Your task to perform on an android device: Open Chrome and go to the settings page Image 0: 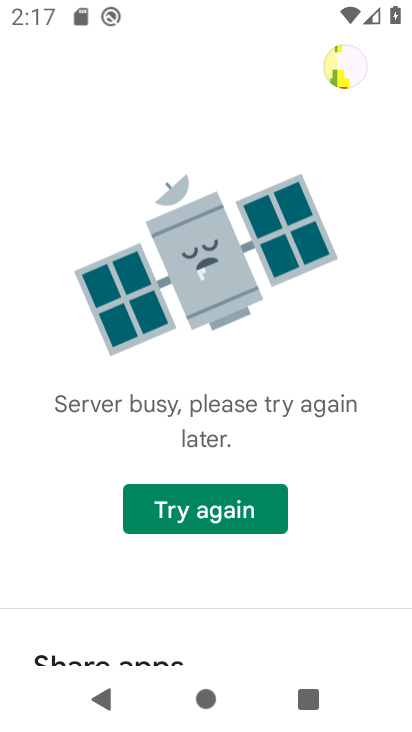
Step 0: press home button
Your task to perform on an android device: Open Chrome and go to the settings page Image 1: 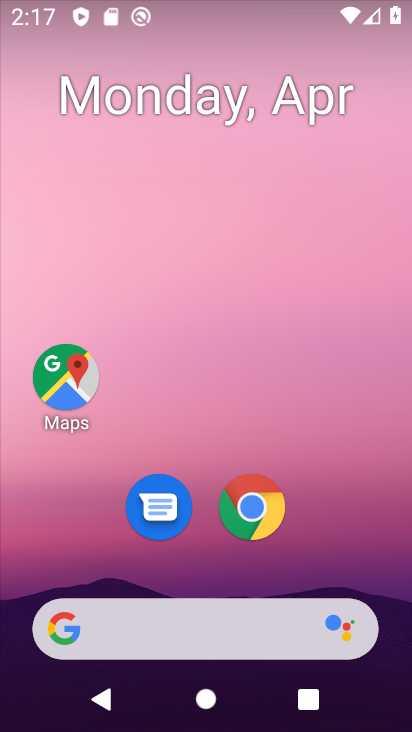
Step 1: click (253, 508)
Your task to perform on an android device: Open Chrome and go to the settings page Image 2: 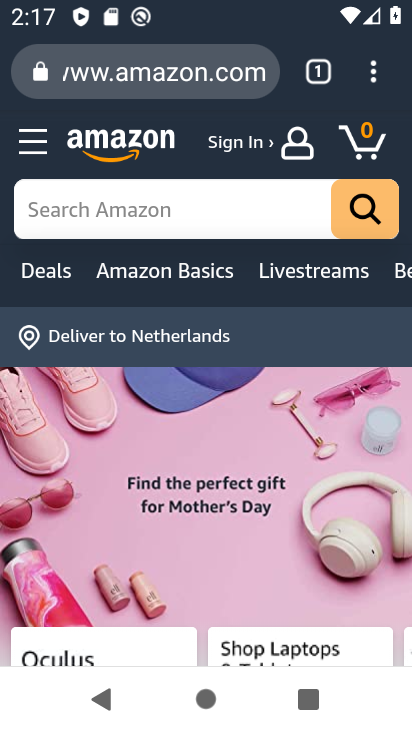
Step 2: click (372, 71)
Your task to perform on an android device: Open Chrome and go to the settings page Image 3: 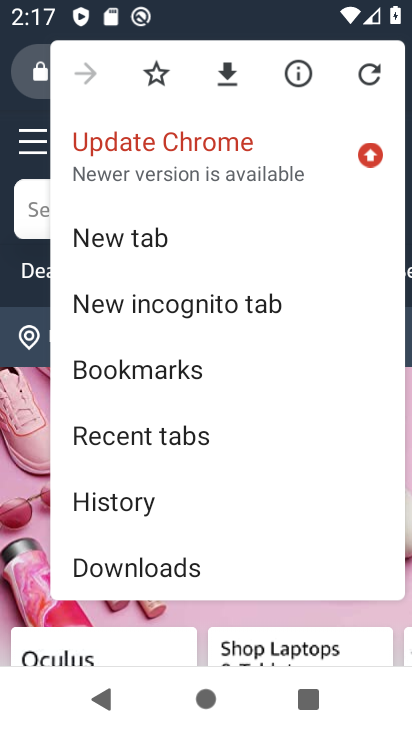
Step 3: drag from (250, 514) to (279, 92)
Your task to perform on an android device: Open Chrome and go to the settings page Image 4: 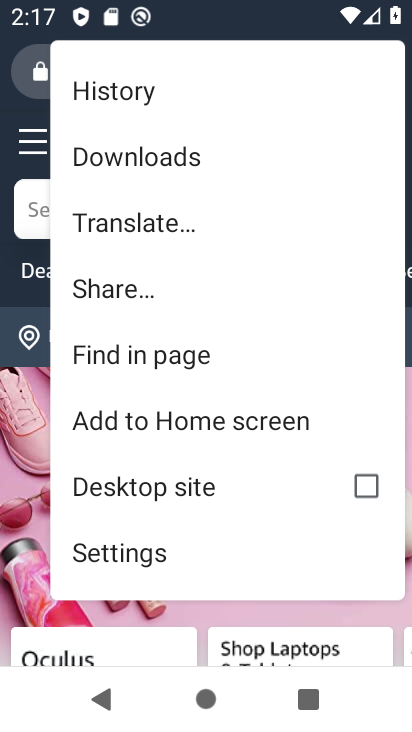
Step 4: drag from (256, 508) to (332, 105)
Your task to perform on an android device: Open Chrome and go to the settings page Image 5: 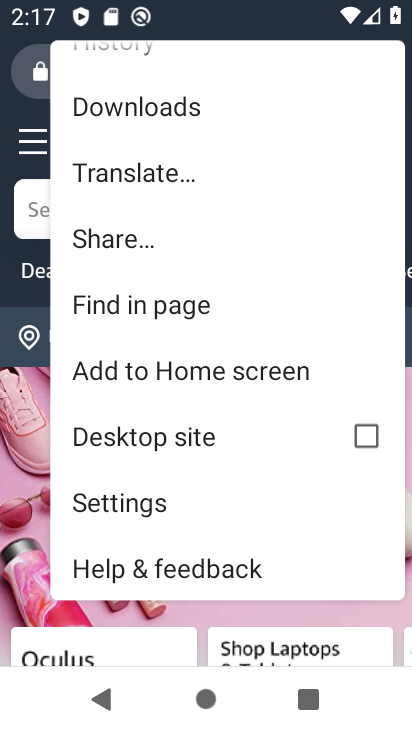
Step 5: click (117, 507)
Your task to perform on an android device: Open Chrome and go to the settings page Image 6: 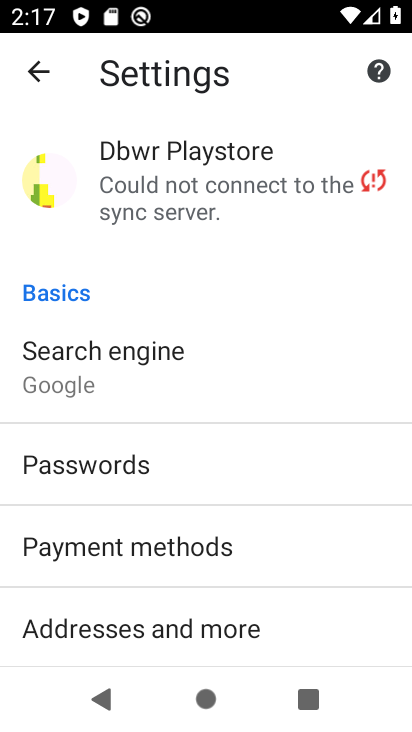
Step 6: task complete